Your task to perform on an android device: star an email in the gmail app Image 0: 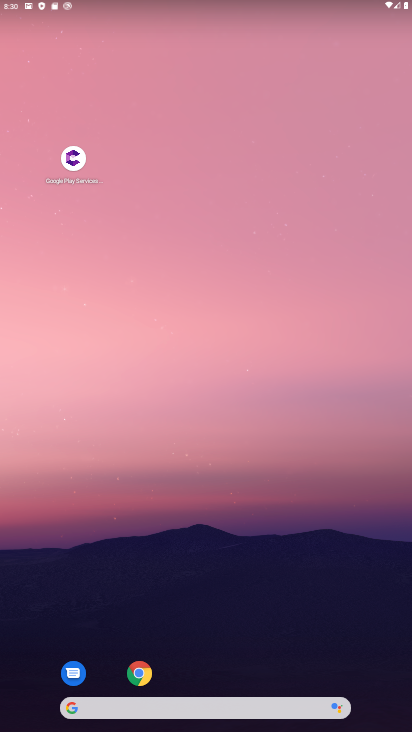
Step 0: drag from (129, 686) to (158, 333)
Your task to perform on an android device: star an email in the gmail app Image 1: 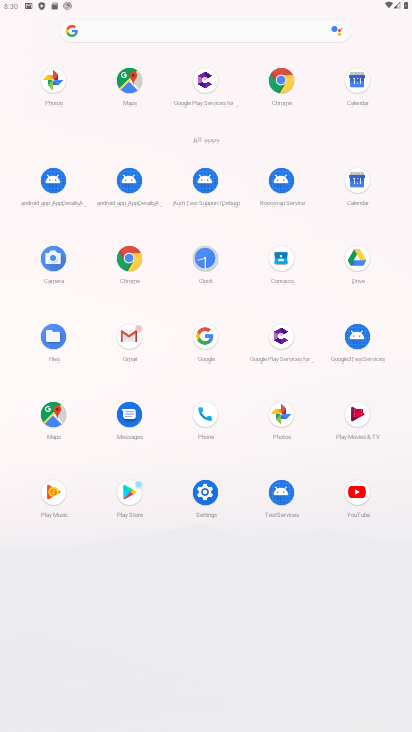
Step 1: click (136, 330)
Your task to perform on an android device: star an email in the gmail app Image 2: 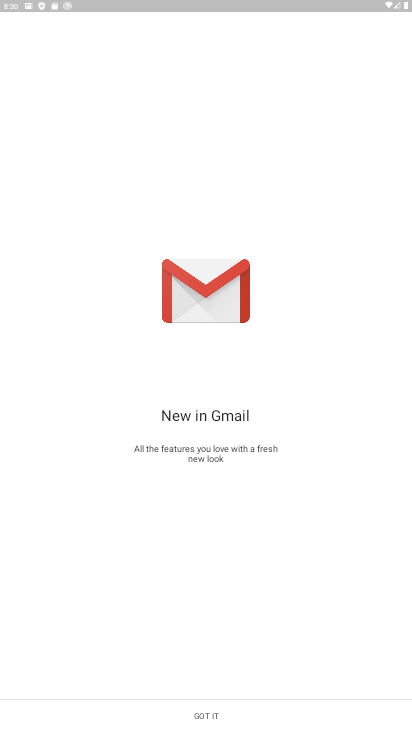
Step 2: click (195, 713)
Your task to perform on an android device: star an email in the gmail app Image 3: 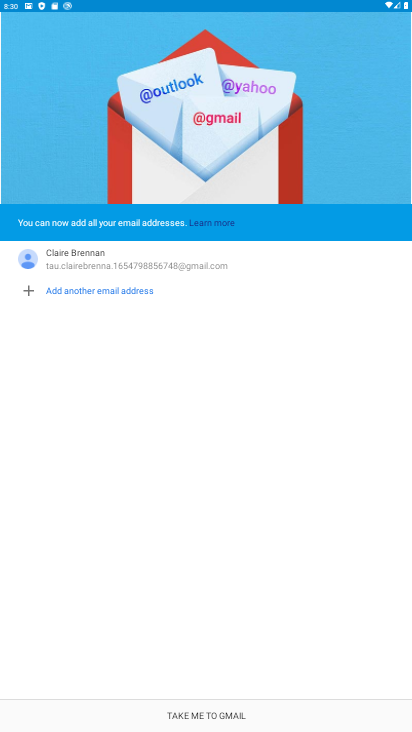
Step 3: click (195, 709)
Your task to perform on an android device: star an email in the gmail app Image 4: 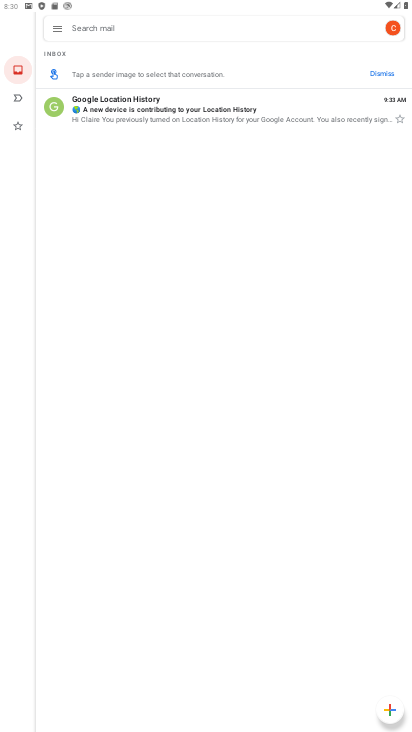
Step 4: click (397, 118)
Your task to perform on an android device: star an email in the gmail app Image 5: 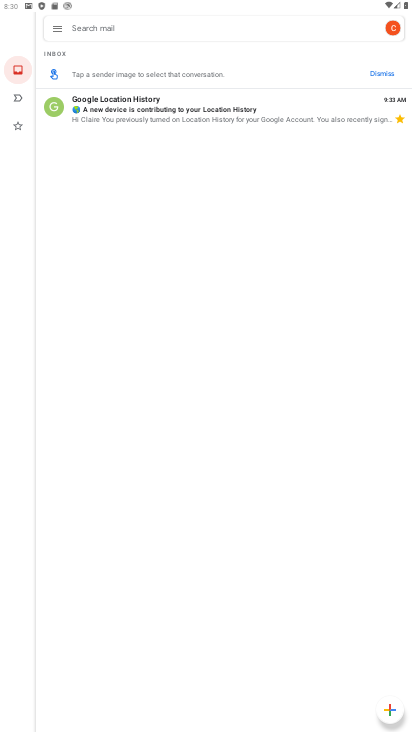
Step 5: task complete